Your task to perform on an android device: Open my contact list Image 0: 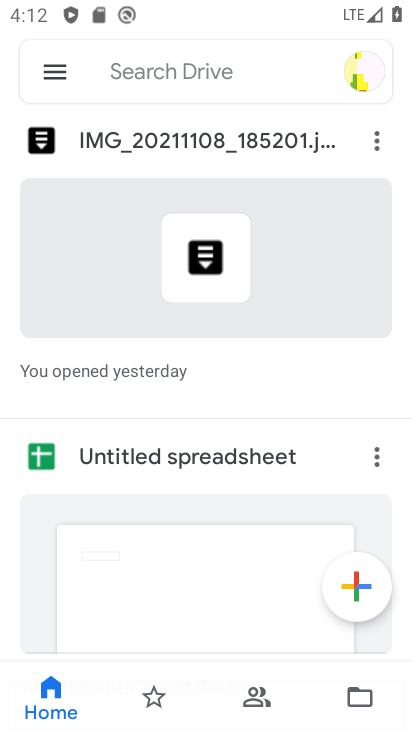
Step 0: press home button
Your task to perform on an android device: Open my contact list Image 1: 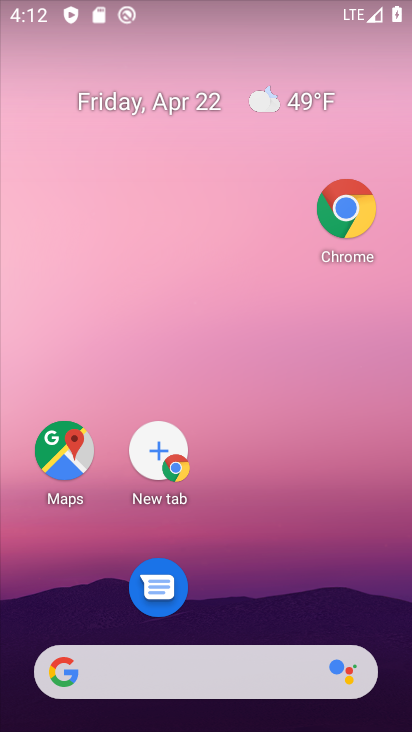
Step 1: drag from (228, 624) to (353, 18)
Your task to perform on an android device: Open my contact list Image 2: 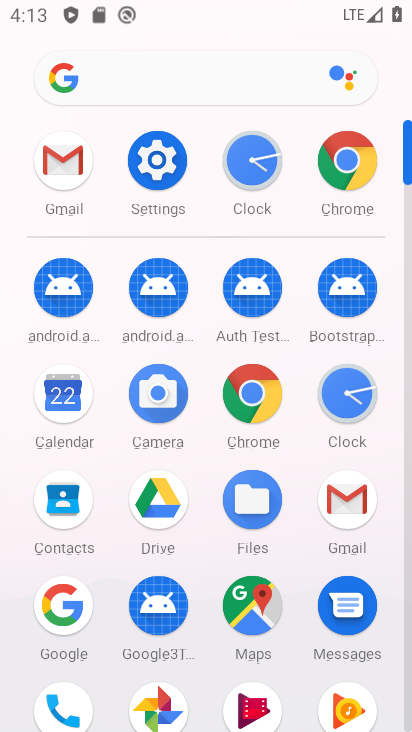
Step 2: click (68, 497)
Your task to perform on an android device: Open my contact list Image 3: 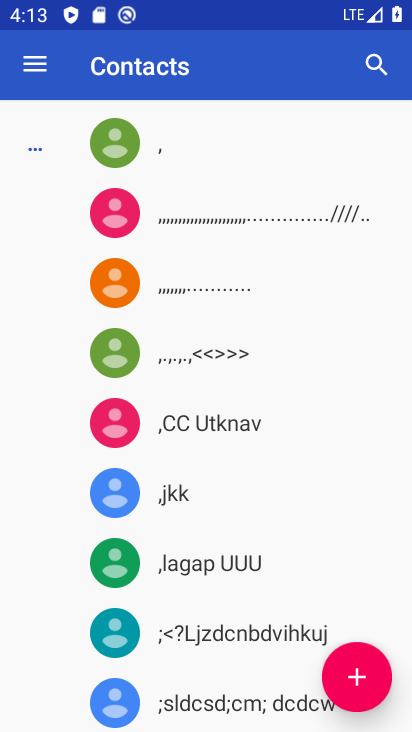
Step 3: task complete